Your task to perform on an android device: Open privacy settings Image 0: 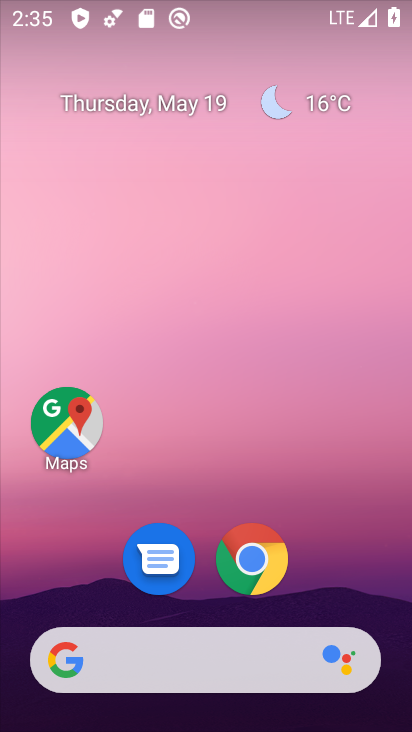
Step 0: drag from (203, 597) to (204, 202)
Your task to perform on an android device: Open privacy settings Image 1: 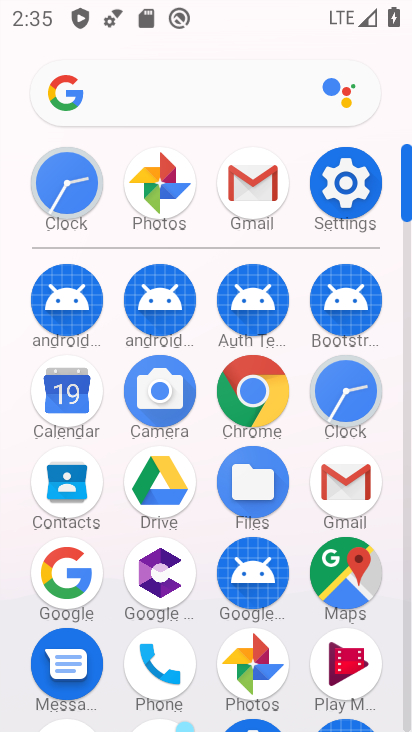
Step 1: click (350, 196)
Your task to perform on an android device: Open privacy settings Image 2: 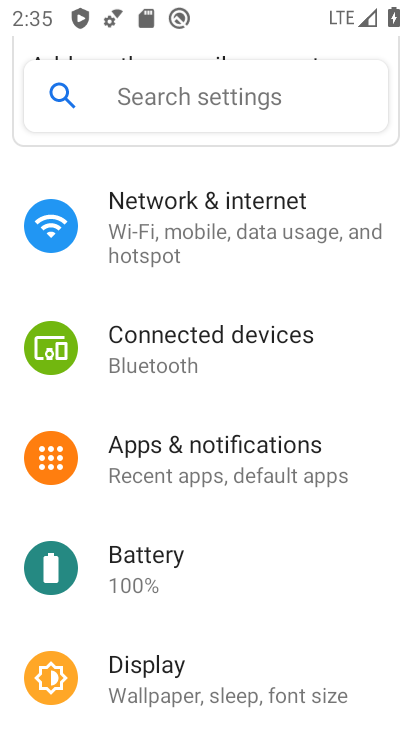
Step 2: drag from (255, 654) to (242, 362)
Your task to perform on an android device: Open privacy settings Image 3: 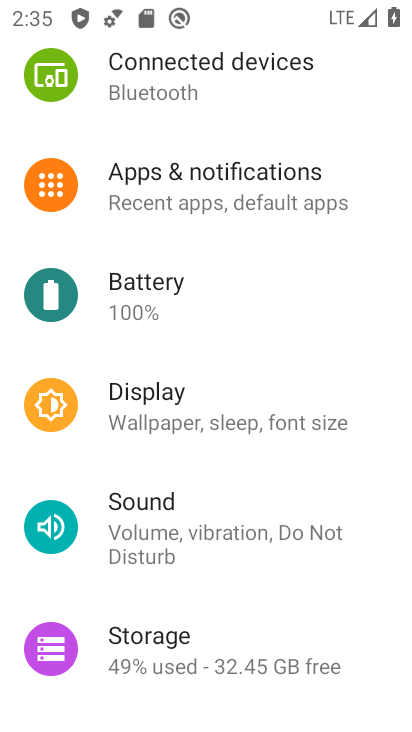
Step 3: click (232, 328)
Your task to perform on an android device: Open privacy settings Image 4: 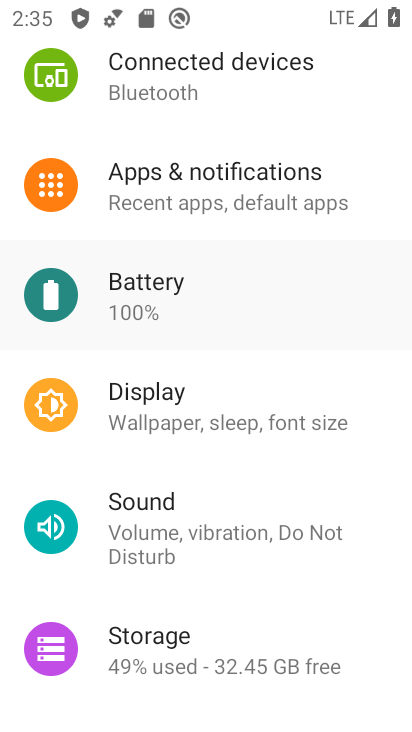
Step 4: drag from (232, 537) to (228, 347)
Your task to perform on an android device: Open privacy settings Image 5: 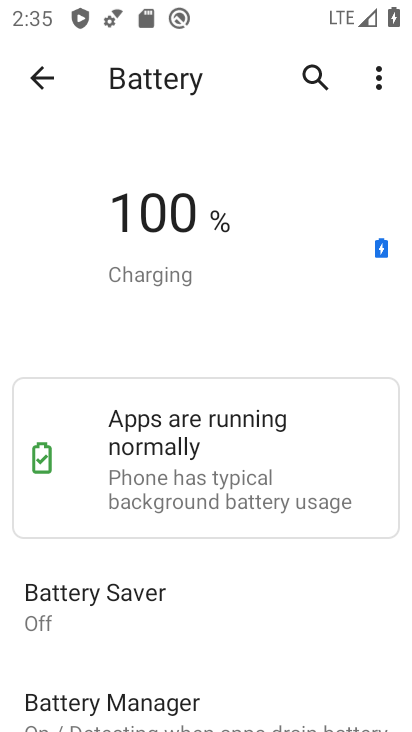
Step 5: click (39, 75)
Your task to perform on an android device: Open privacy settings Image 6: 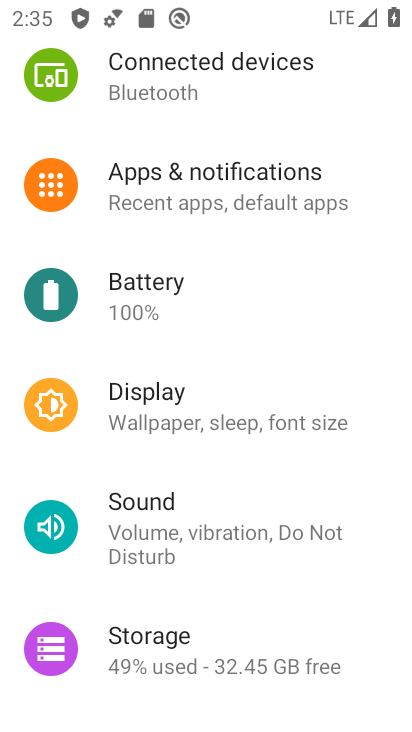
Step 6: drag from (144, 582) to (179, 332)
Your task to perform on an android device: Open privacy settings Image 7: 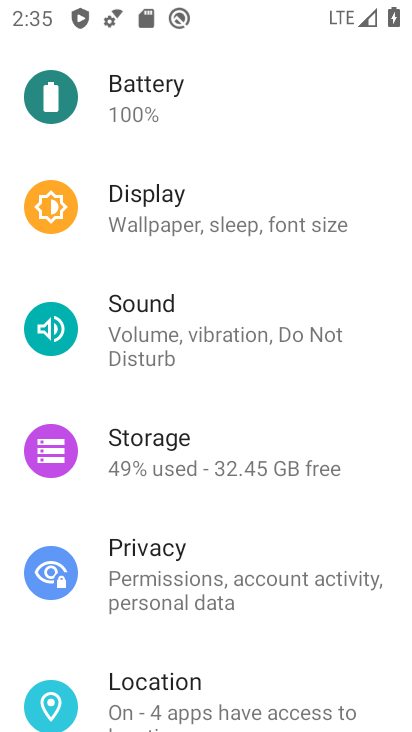
Step 7: click (191, 567)
Your task to perform on an android device: Open privacy settings Image 8: 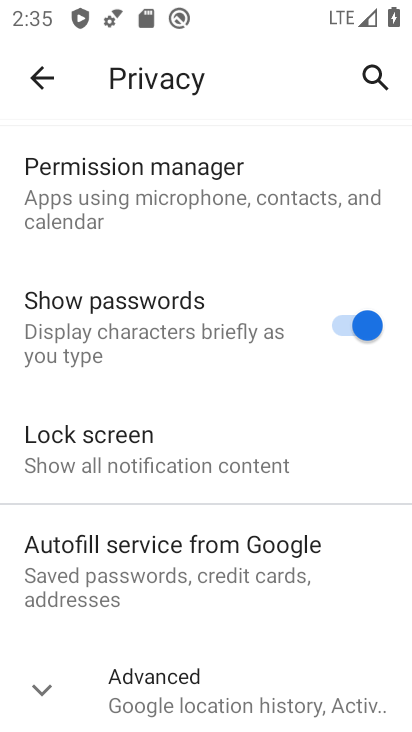
Step 8: task complete